Your task to perform on an android device: Search for shimano brake pads on Walmart Image 0: 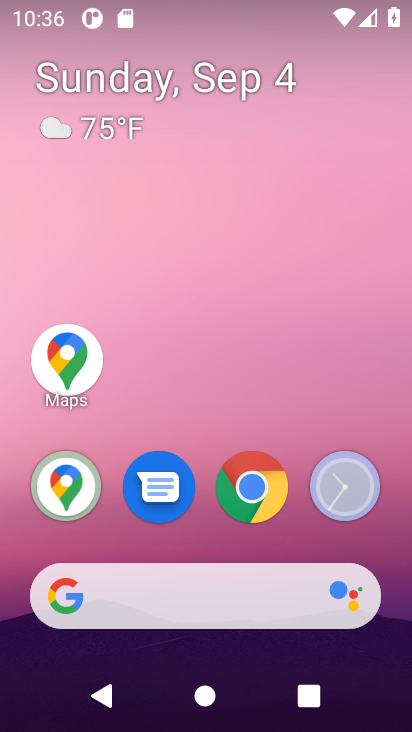
Step 0: click (59, 381)
Your task to perform on an android device: Search for shimano brake pads on Walmart Image 1: 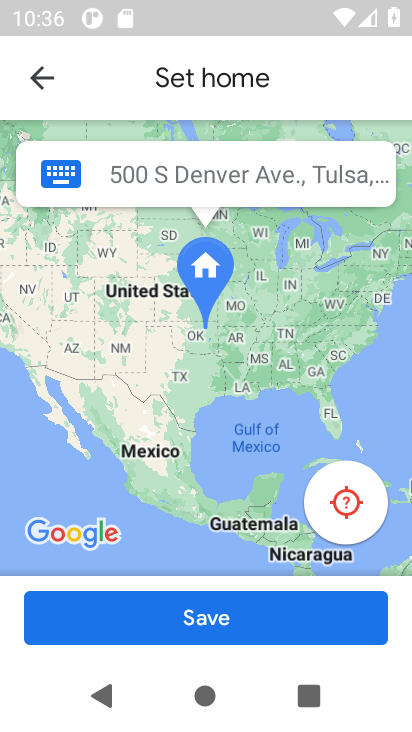
Step 1: click (72, 369)
Your task to perform on an android device: Search for shimano brake pads on Walmart Image 2: 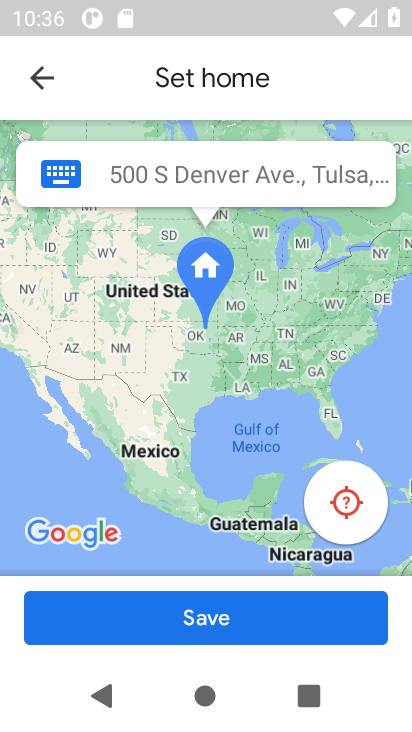
Step 2: task complete